Your task to perform on an android device: set an alarm Image 0: 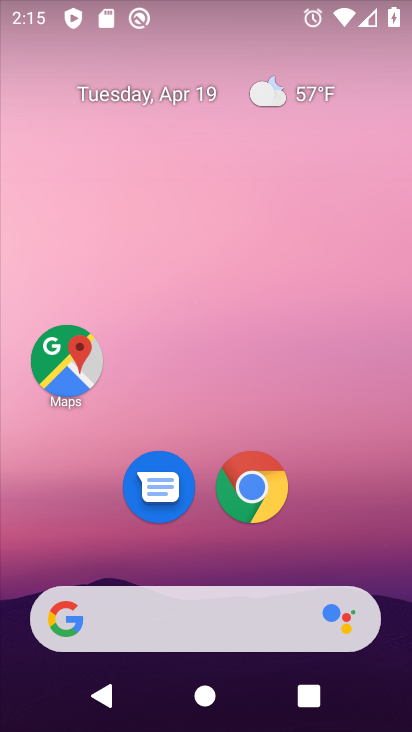
Step 0: drag from (353, 517) to (338, 123)
Your task to perform on an android device: set an alarm Image 1: 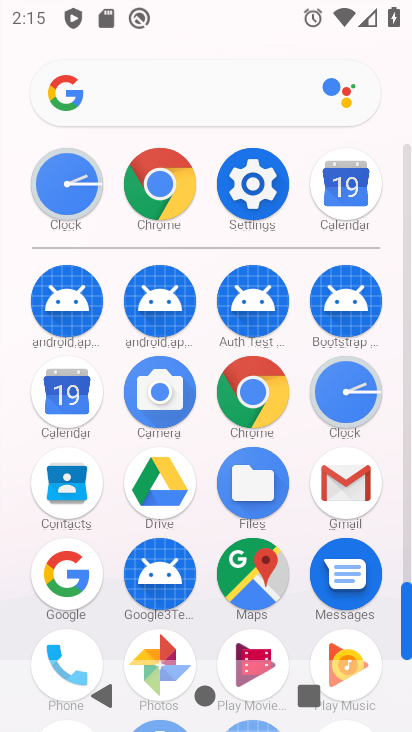
Step 1: click (344, 399)
Your task to perform on an android device: set an alarm Image 2: 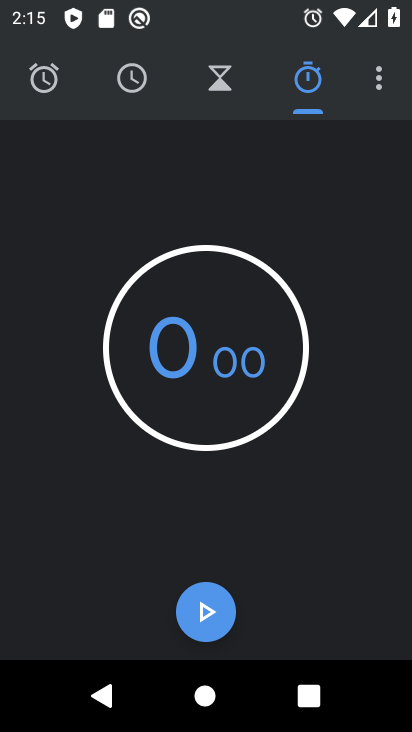
Step 2: click (42, 76)
Your task to perform on an android device: set an alarm Image 3: 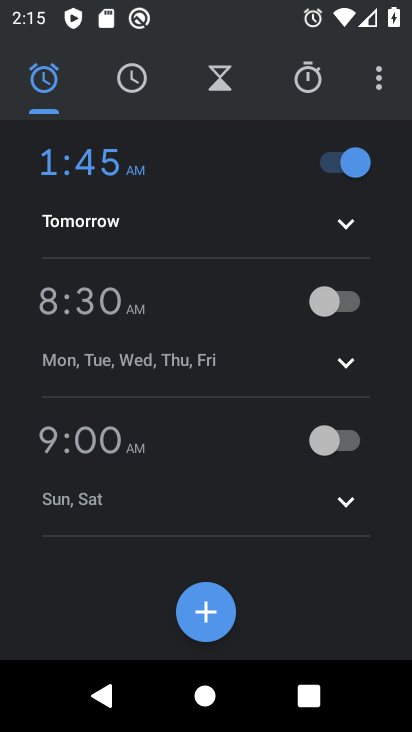
Step 3: click (200, 612)
Your task to perform on an android device: set an alarm Image 4: 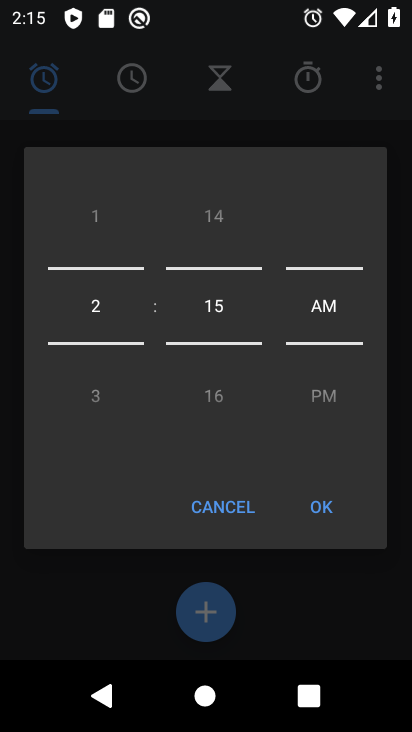
Step 4: click (331, 516)
Your task to perform on an android device: set an alarm Image 5: 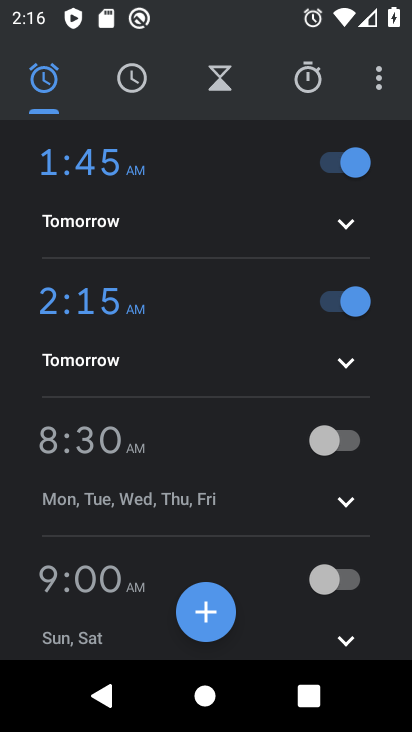
Step 5: task complete